Your task to perform on an android device: turn on location history Image 0: 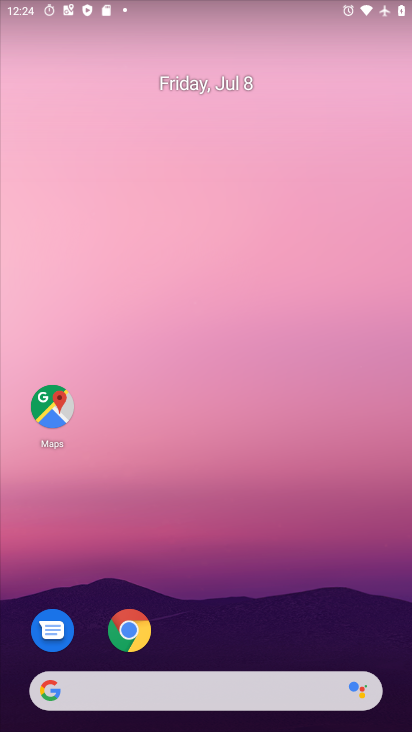
Step 0: drag from (222, 641) to (230, 46)
Your task to perform on an android device: turn on location history Image 1: 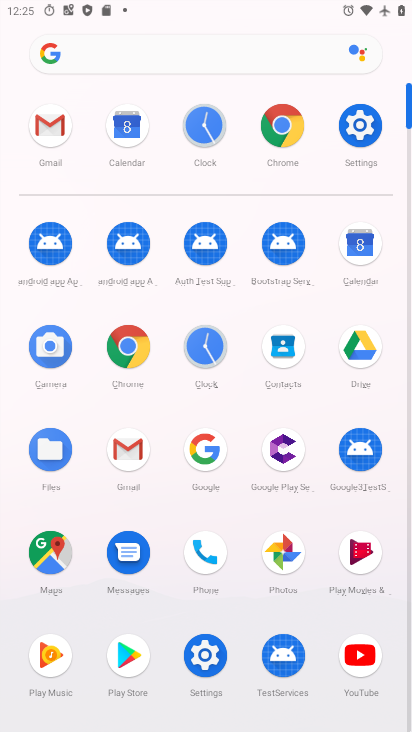
Step 1: click (358, 130)
Your task to perform on an android device: turn on location history Image 2: 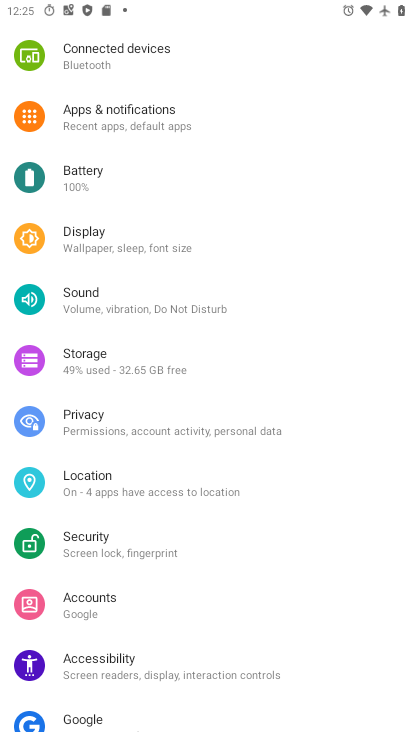
Step 2: click (113, 492)
Your task to perform on an android device: turn on location history Image 3: 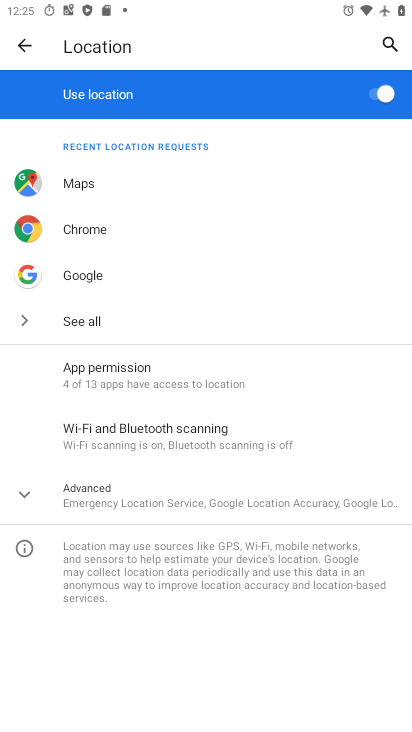
Step 3: click (151, 503)
Your task to perform on an android device: turn on location history Image 4: 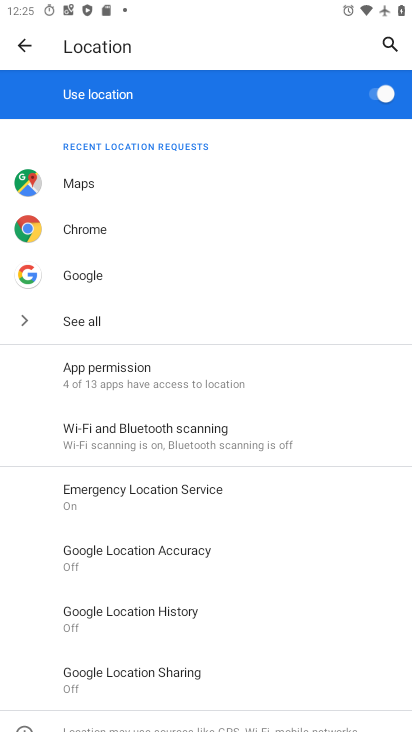
Step 4: click (213, 616)
Your task to perform on an android device: turn on location history Image 5: 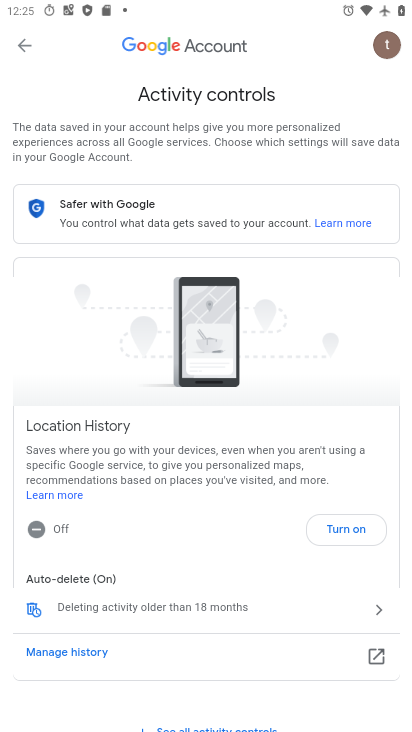
Step 5: click (354, 529)
Your task to perform on an android device: turn on location history Image 6: 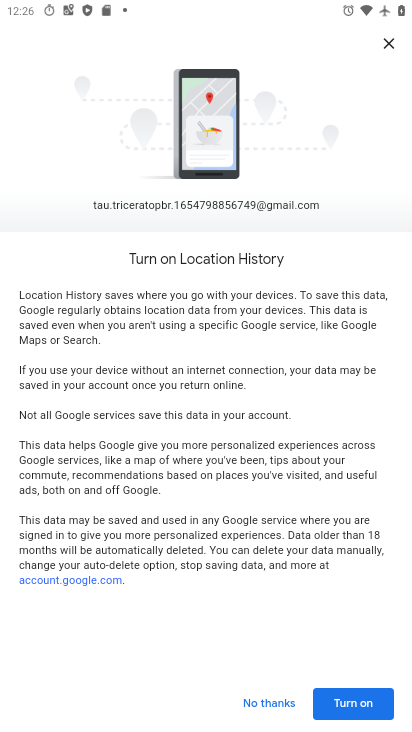
Step 6: click (361, 699)
Your task to perform on an android device: turn on location history Image 7: 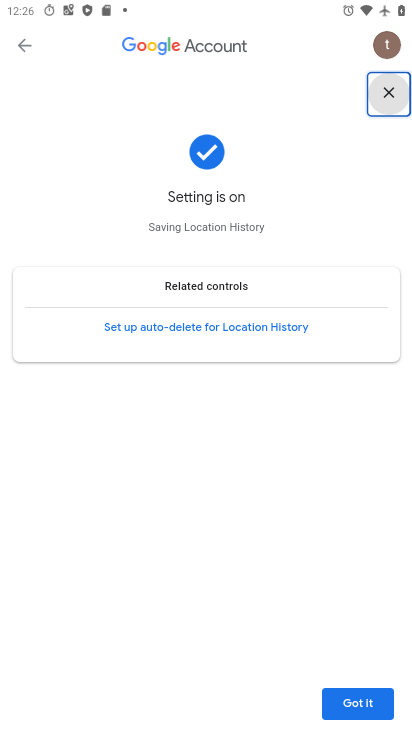
Step 7: task complete